Your task to perform on an android device: Open Maps and search for coffee Image 0: 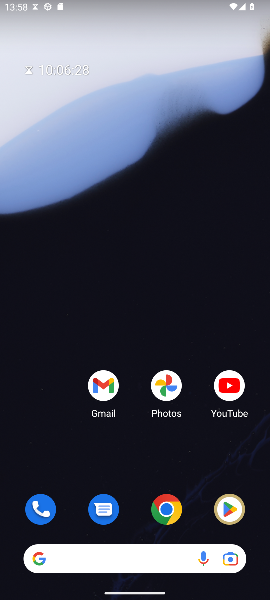
Step 0: press home button
Your task to perform on an android device: Open Maps and search for coffee Image 1: 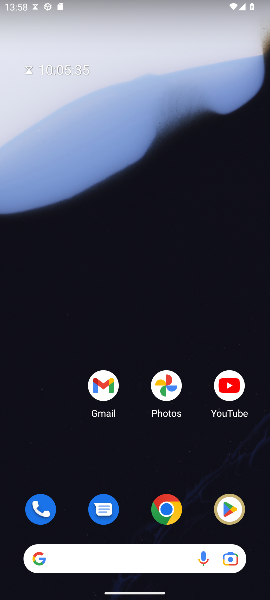
Step 1: drag from (148, 431) to (68, 46)
Your task to perform on an android device: Open Maps and search for coffee Image 2: 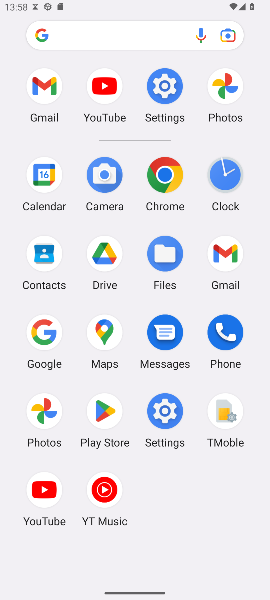
Step 2: click (104, 338)
Your task to perform on an android device: Open Maps and search for coffee Image 3: 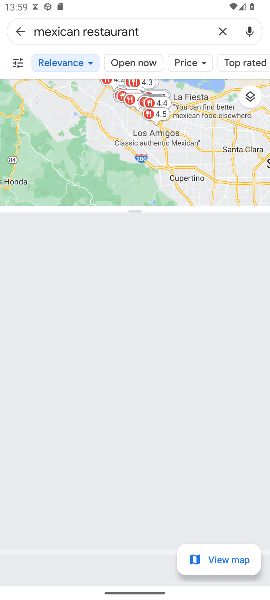
Step 3: click (224, 33)
Your task to perform on an android device: Open Maps and search for coffee Image 4: 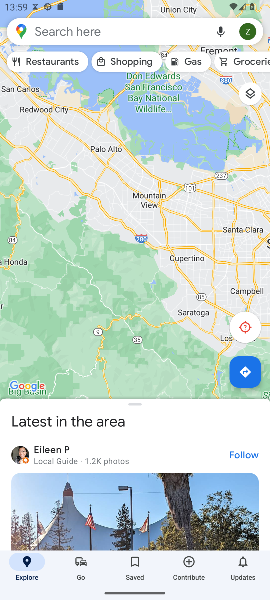
Step 4: click (107, 24)
Your task to perform on an android device: Open Maps and search for coffee Image 5: 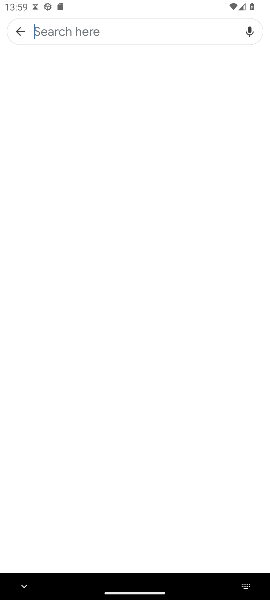
Step 5: type " coffee"
Your task to perform on an android device: Open Maps and search for coffee Image 6: 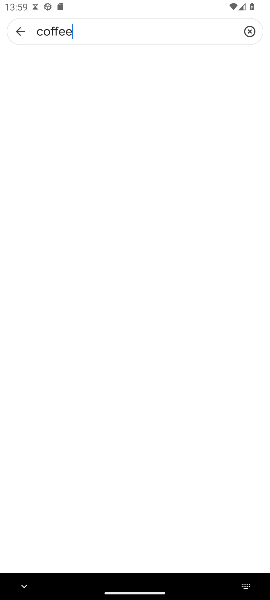
Step 6: press enter
Your task to perform on an android device: Open Maps and search for coffee Image 7: 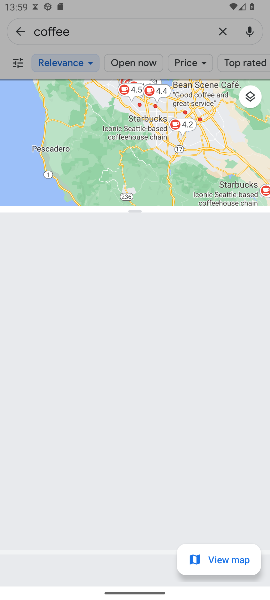
Step 7: task complete